Your task to perform on an android device: What's the weather going to be tomorrow? Image 0: 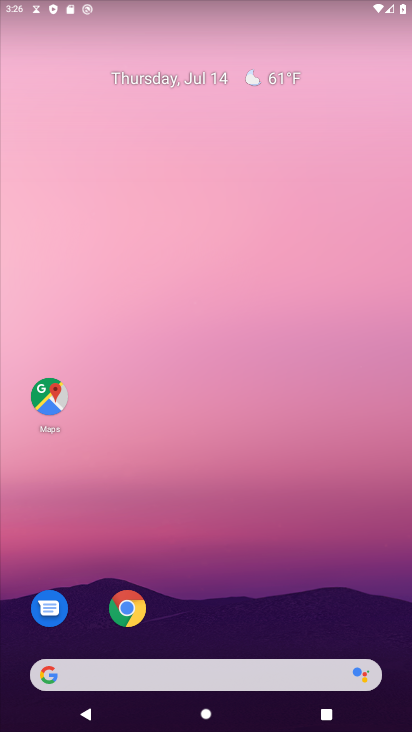
Step 0: click (276, 74)
Your task to perform on an android device: What's the weather going to be tomorrow? Image 1: 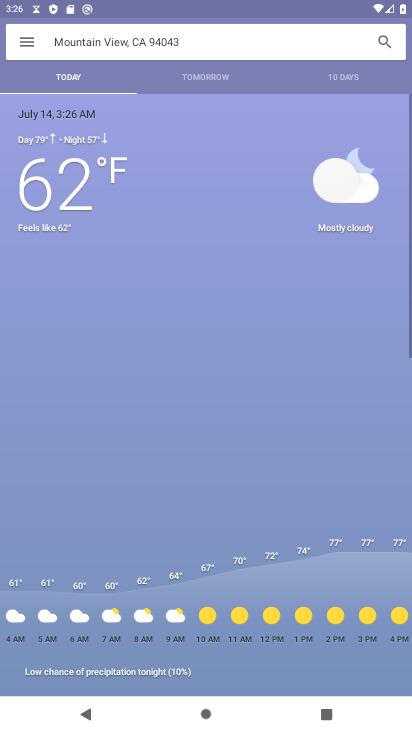
Step 1: click (103, 74)
Your task to perform on an android device: What's the weather going to be tomorrow? Image 2: 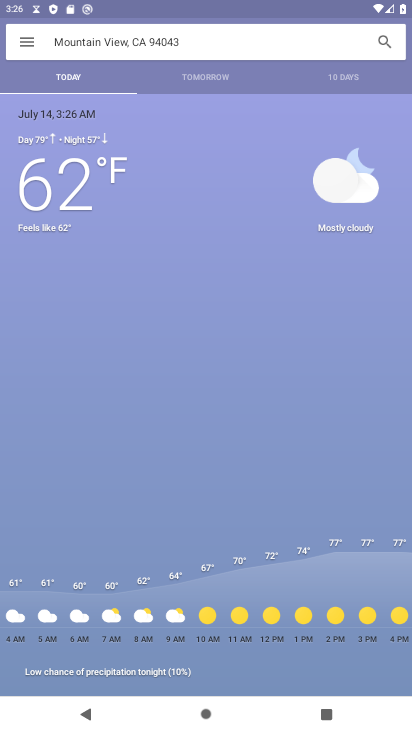
Step 2: click (216, 83)
Your task to perform on an android device: What's the weather going to be tomorrow? Image 3: 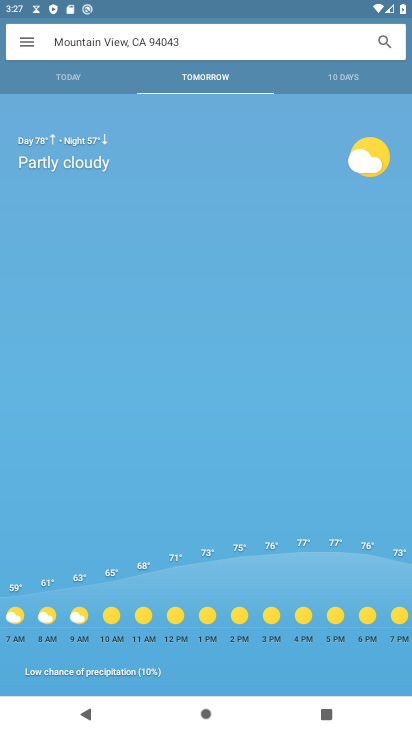
Step 3: task complete